Your task to perform on an android device: Open sound settings Image 0: 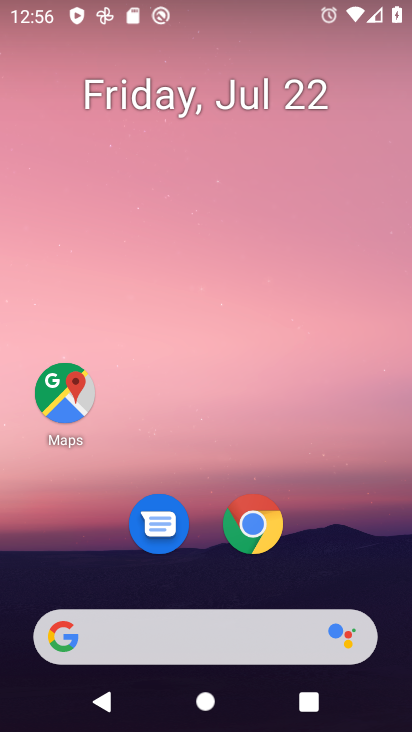
Step 0: drag from (203, 624) to (243, 194)
Your task to perform on an android device: Open sound settings Image 1: 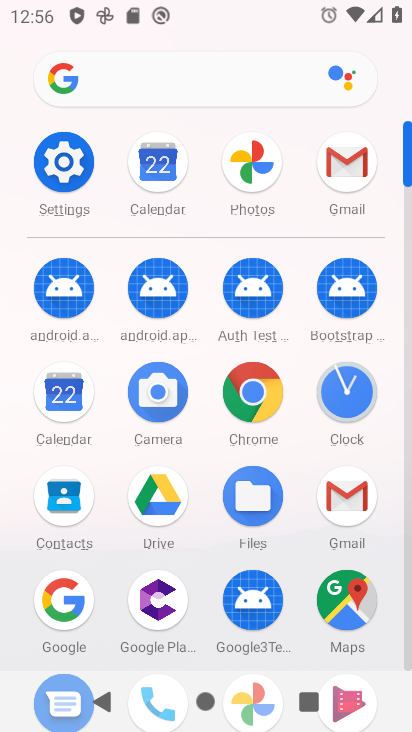
Step 1: click (63, 175)
Your task to perform on an android device: Open sound settings Image 2: 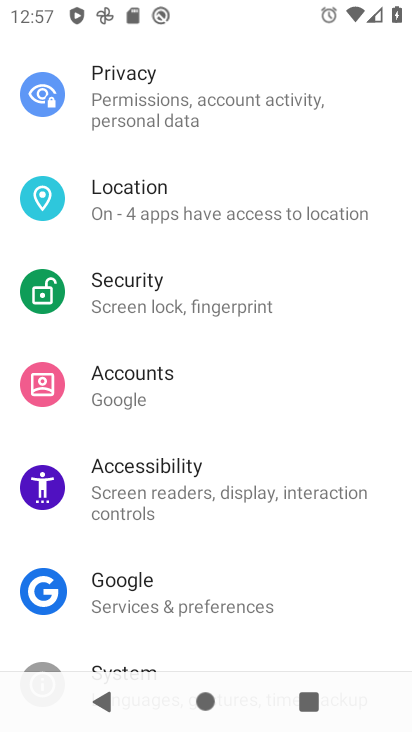
Step 2: drag from (259, 319) to (186, 602)
Your task to perform on an android device: Open sound settings Image 3: 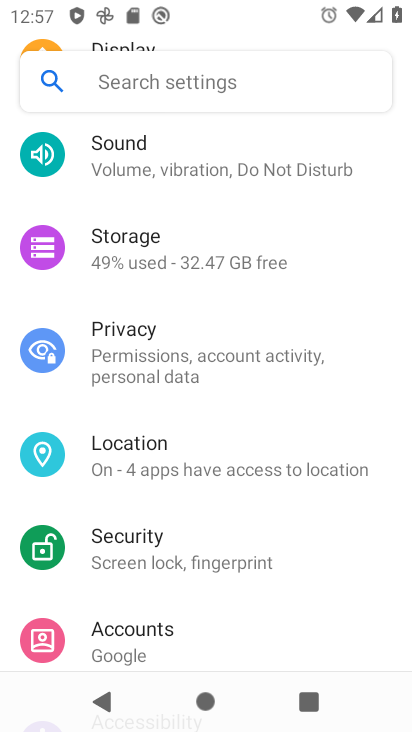
Step 3: click (139, 144)
Your task to perform on an android device: Open sound settings Image 4: 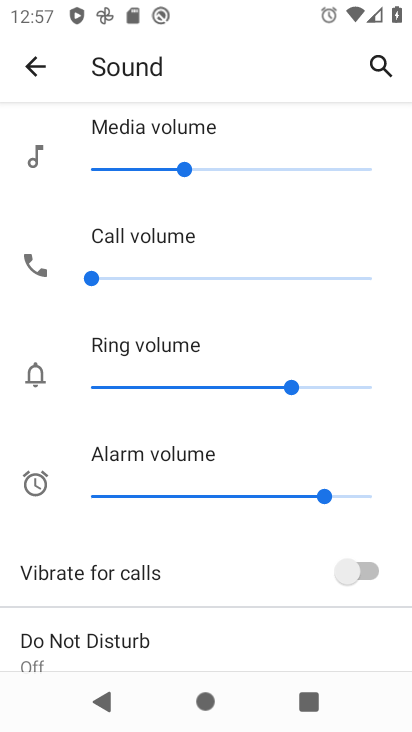
Step 4: task complete